Your task to perform on an android device: Open calendar and show me the fourth week of next month Image 0: 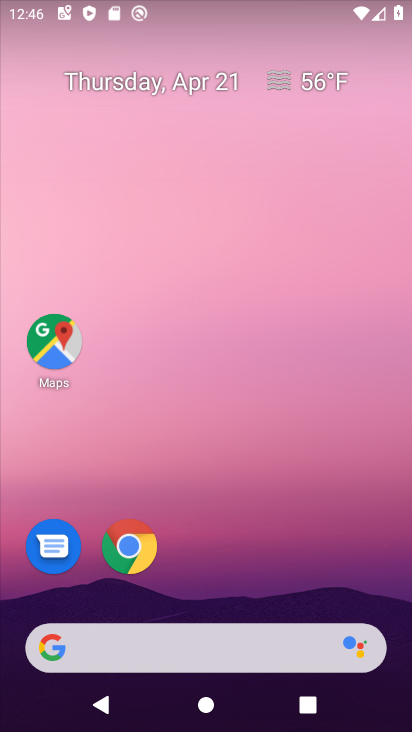
Step 0: drag from (230, 619) to (342, 34)
Your task to perform on an android device: Open calendar and show me the fourth week of next month Image 1: 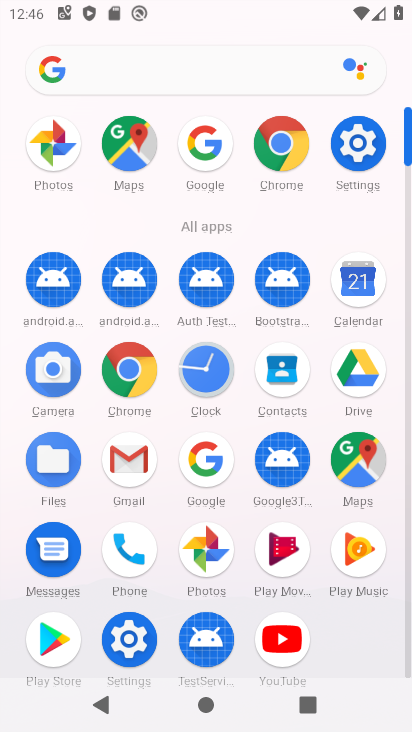
Step 1: click (361, 284)
Your task to perform on an android device: Open calendar and show me the fourth week of next month Image 2: 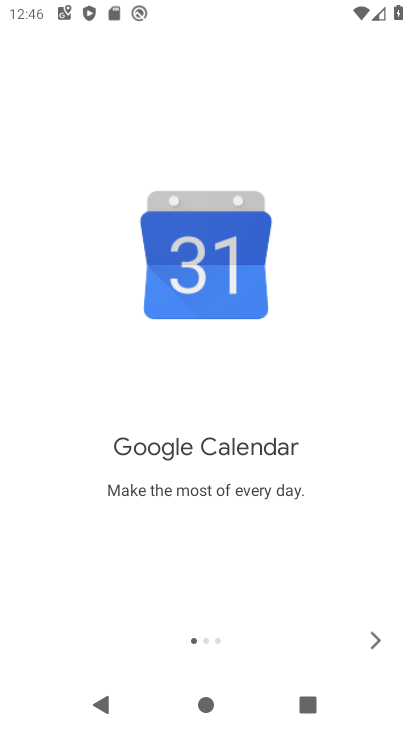
Step 2: click (371, 637)
Your task to perform on an android device: Open calendar and show me the fourth week of next month Image 3: 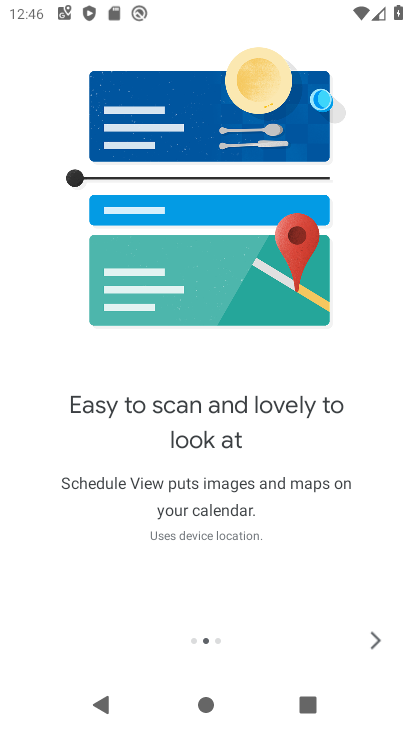
Step 3: click (371, 637)
Your task to perform on an android device: Open calendar and show me the fourth week of next month Image 4: 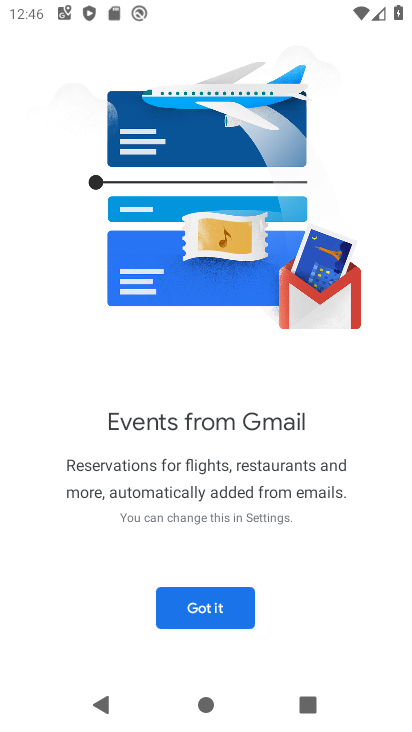
Step 4: click (212, 610)
Your task to perform on an android device: Open calendar and show me the fourth week of next month Image 5: 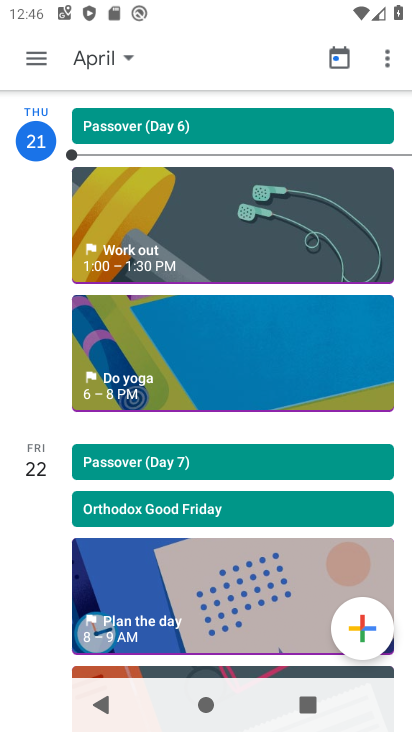
Step 5: click (107, 58)
Your task to perform on an android device: Open calendar and show me the fourth week of next month Image 6: 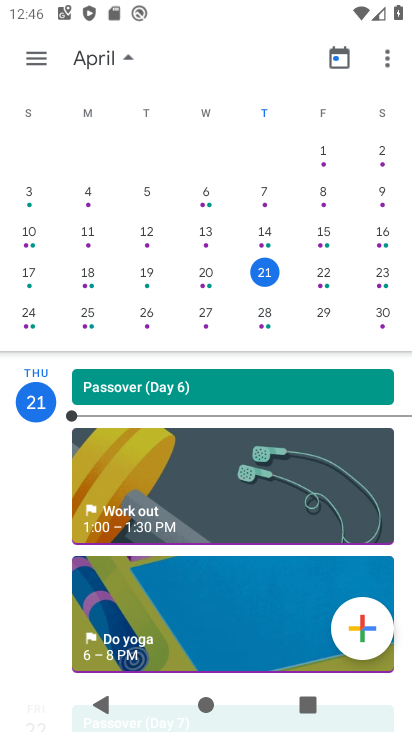
Step 6: drag from (368, 250) to (5, 223)
Your task to perform on an android device: Open calendar and show me the fourth week of next month Image 7: 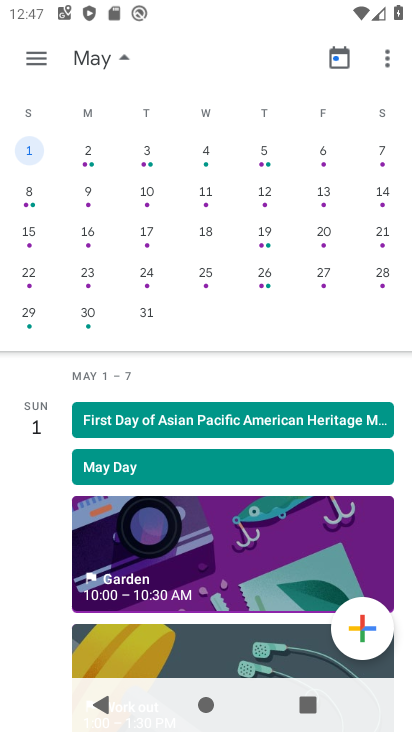
Step 7: click (21, 276)
Your task to perform on an android device: Open calendar and show me the fourth week of next month Image 8: 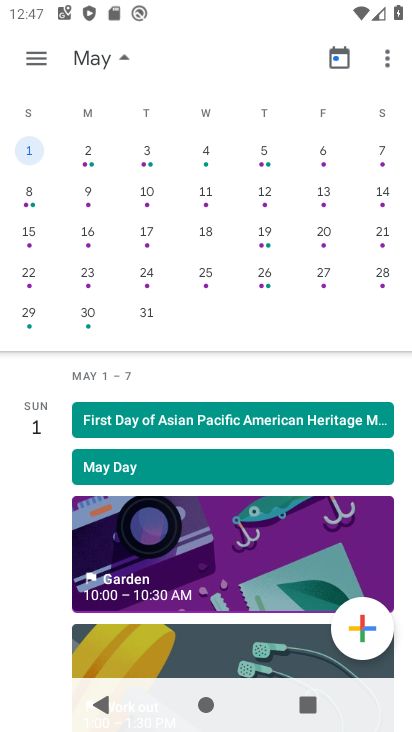
Step 8: click (32, 274)
Your task to perform on an android device: Open calendar and show me the fourth week of next month Image 9: 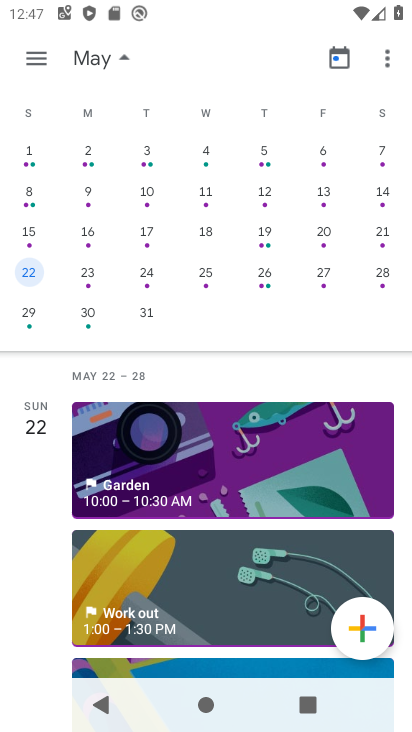
Step 9: click (41, 57)
Your task to perform on an android device: Open calendar and show me the fourth week of next month Image 10: 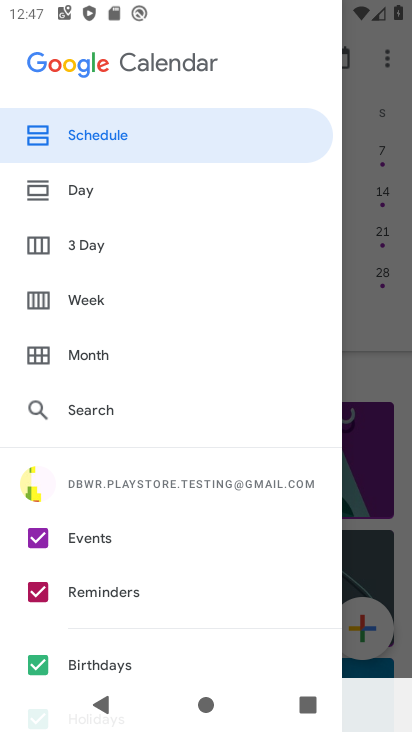
Step 10: click (86, 301)
Your task to perform on an android device: Open calendar and show me the fourth week of next month Image 11: 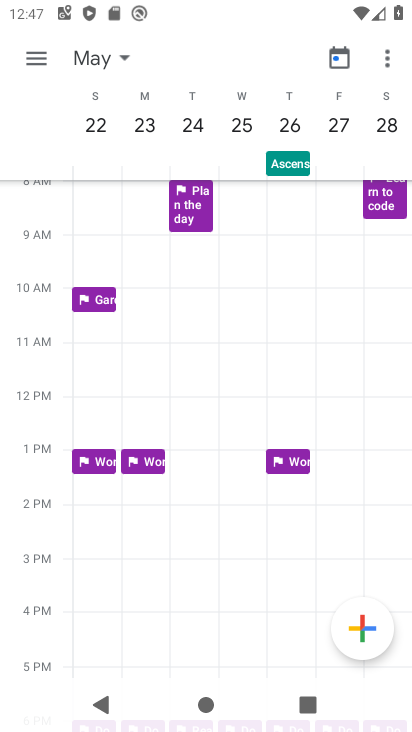
Step 11: task complete